Your task to perform on an android device: turn on wifi Image 0: 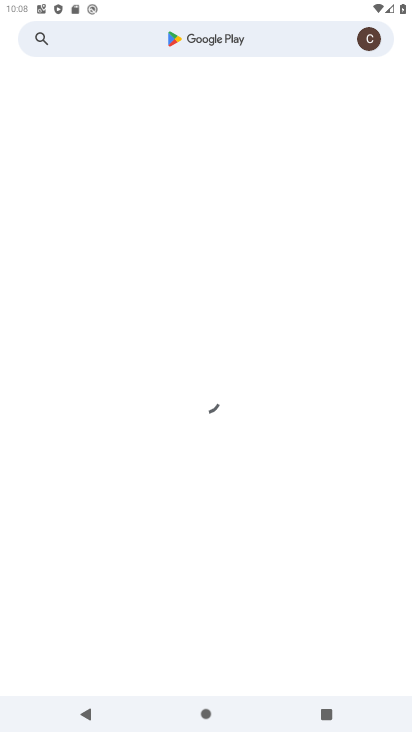
Step 0: press home button
Your task to perform on an android device: turn on wifi Image 1: 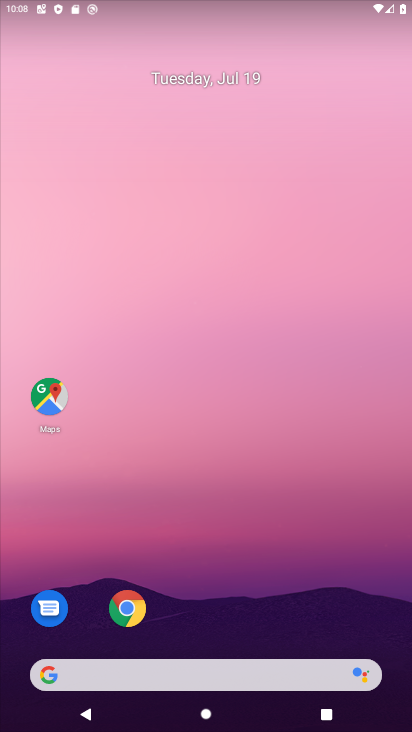
Step 1: drag from (196, 652) to (314, 18)
Your task to perform on an android device: turn on wifi Image 2: 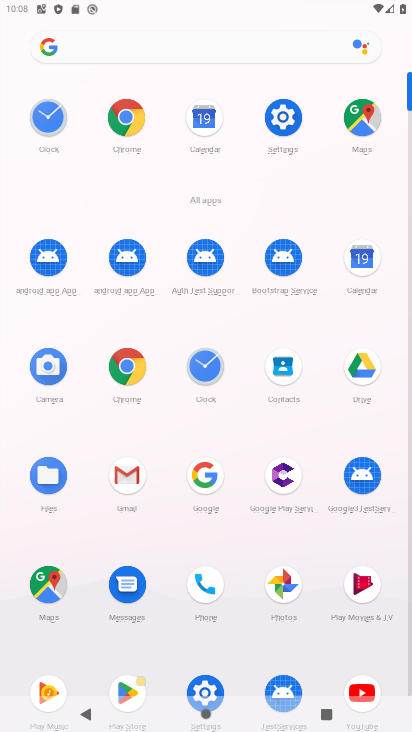
Step 2: click (291, 103)
Your task to perform on an android device: turn on wifi Image 3: 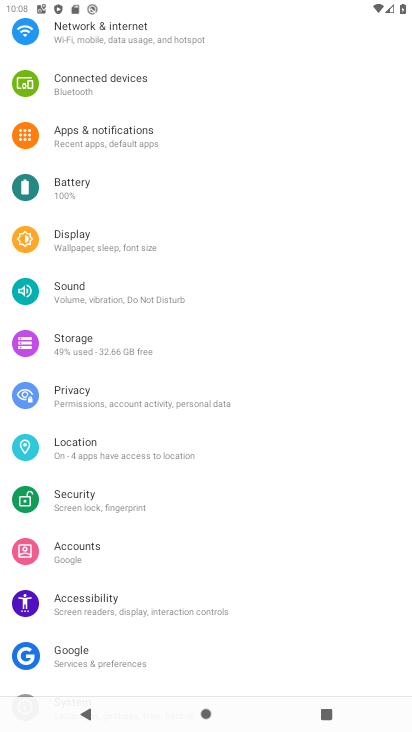
Step 3: click (103, 29)
Your task to perform on an android device: turn on wifi Image 4: 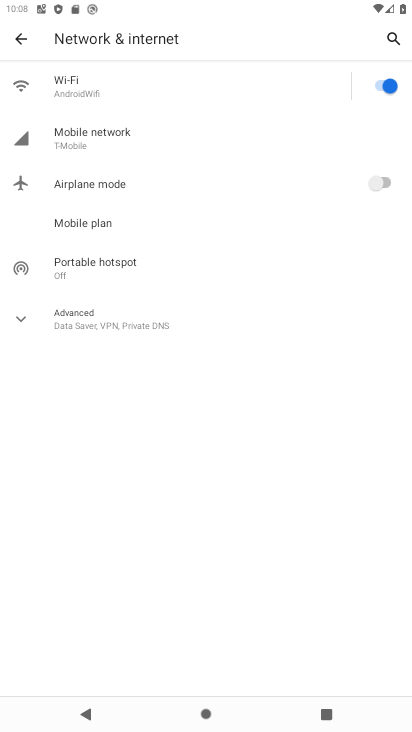
Step 4: click (189, 82)
Your task to perform on an android device: turn on wifi Image 5: 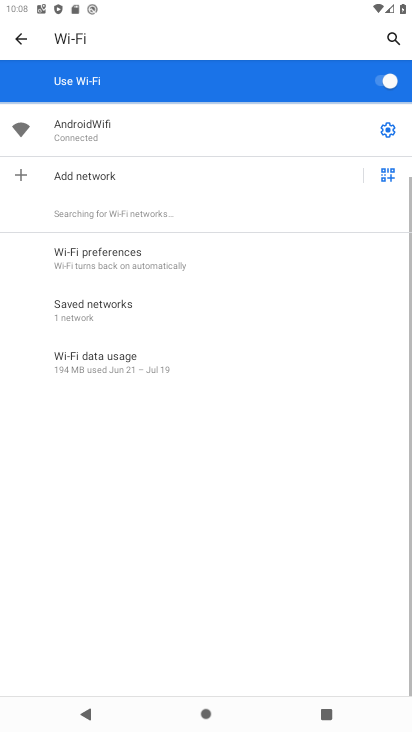
Step 5: task complete